Your task to perform on an android device: check data usage Image 0: 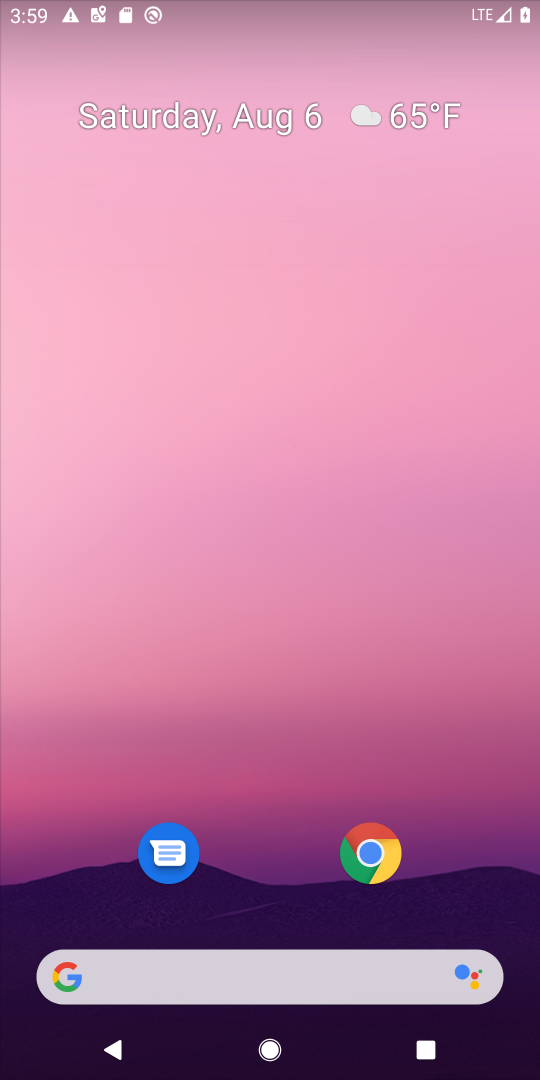
Step 0: drag from (244, 899) to (274, 116)
Your task to perform on an android device: check data usage Image 1: 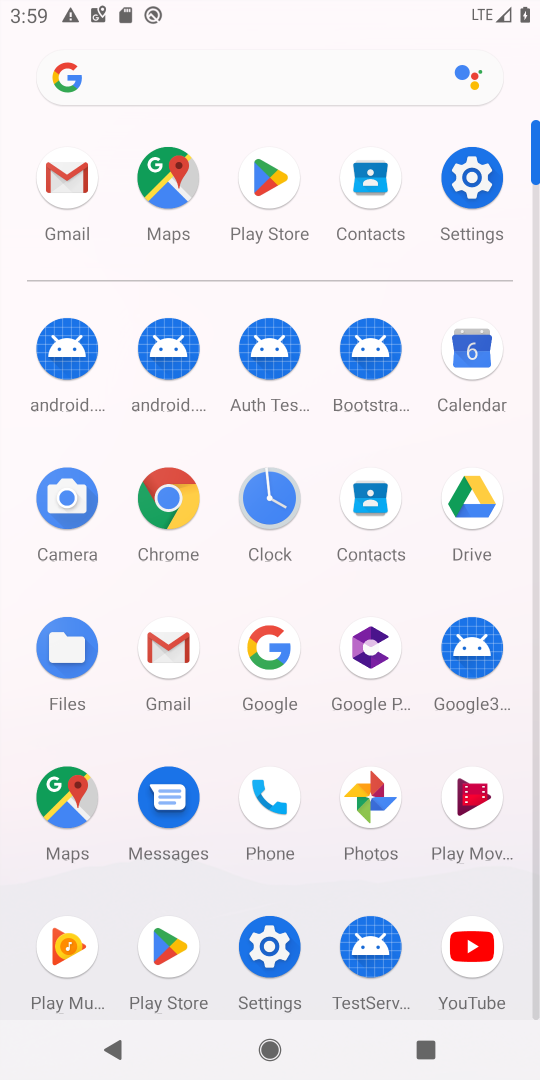
Step 1: click (484, 202)
Your task to perform on an android device: check data usage Image 2: 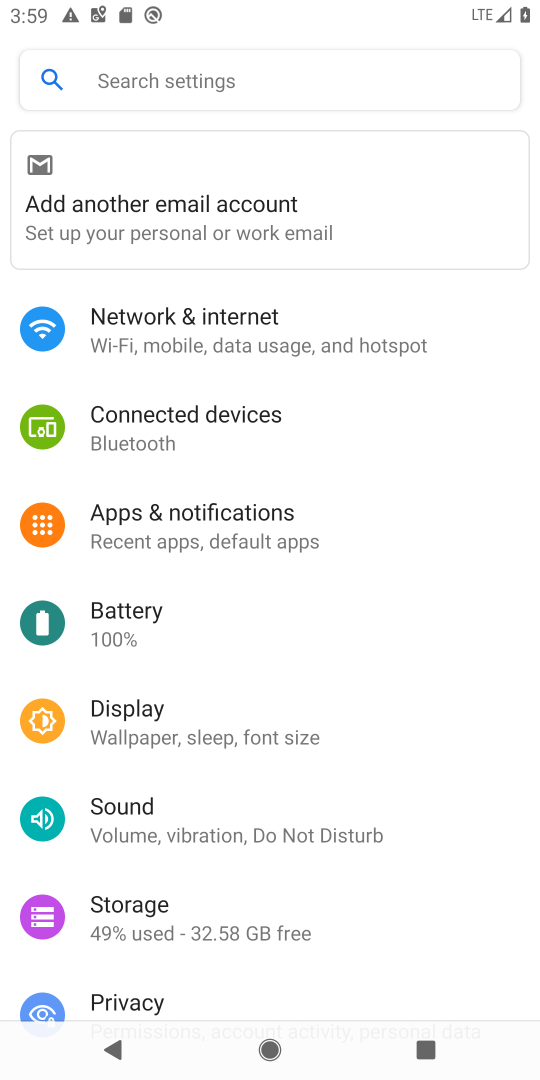
Step 2: click (257, 336)
Your task to perform on an android device: check data usage Image 3: 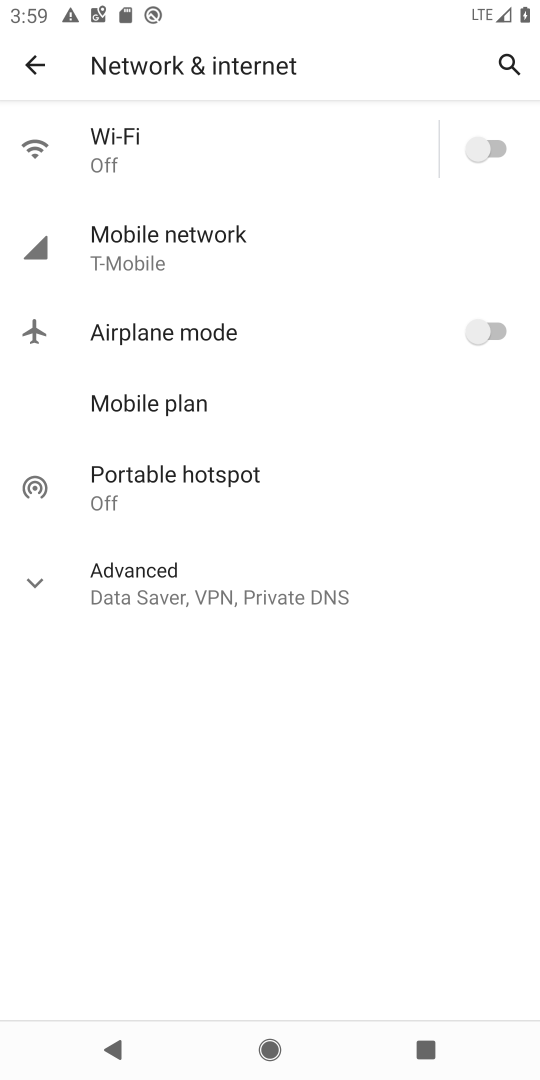
Step 3: click (209, 251)
Your task to perform on an android device: check data usage Image 4: 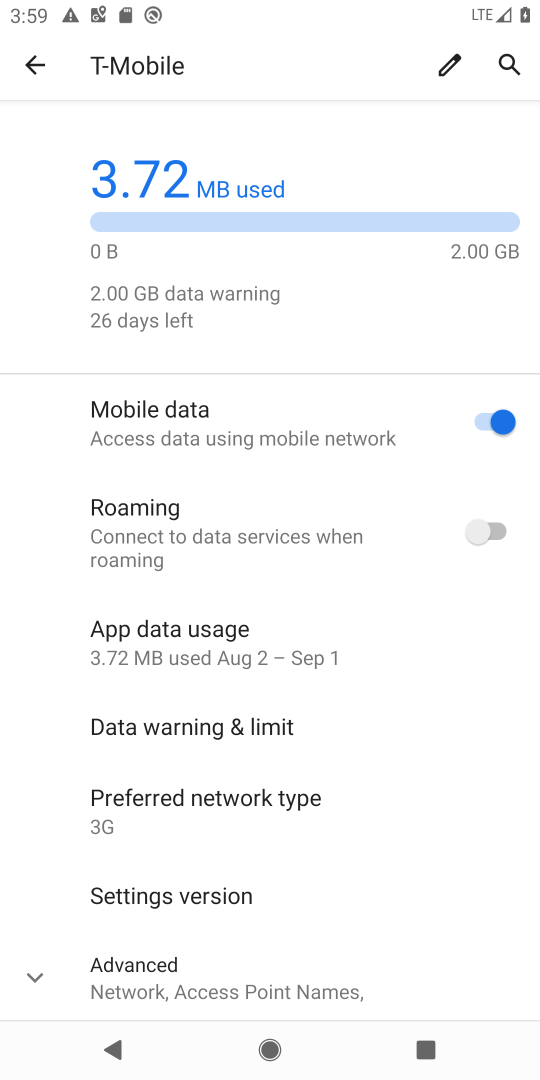
Step 4: click (183, 638)
Your task to perform on an android device: check data usage Image 5: 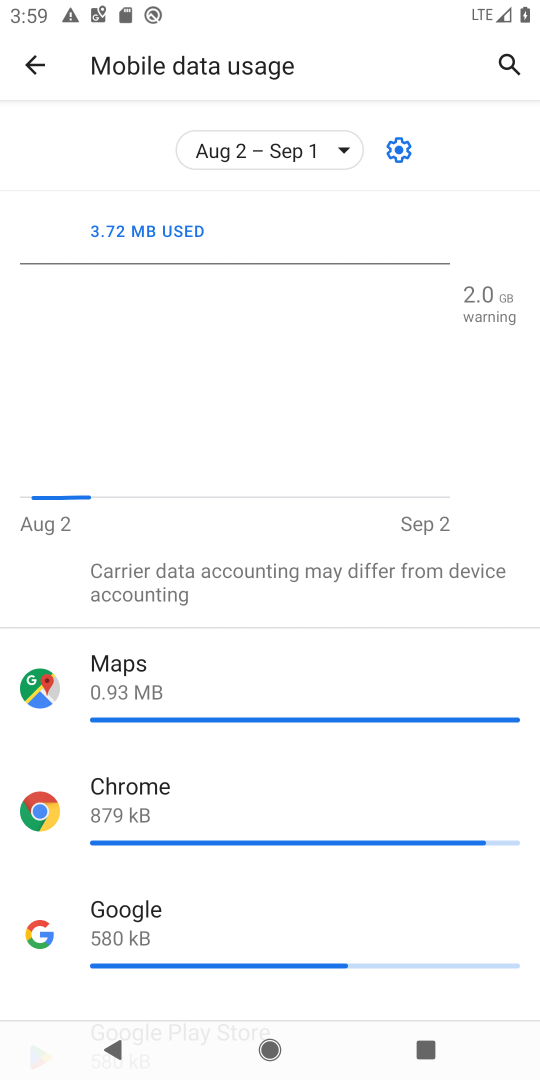
Step 5: task complete